Your task to perform on an android device: change the clock display to show seconds Image 0: 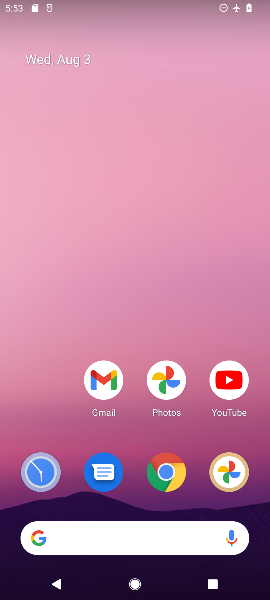
Step 0: drag from (201, 466) to (118, 33)
Your task to perform on an android device: change the clock display to show seconds Image 1: 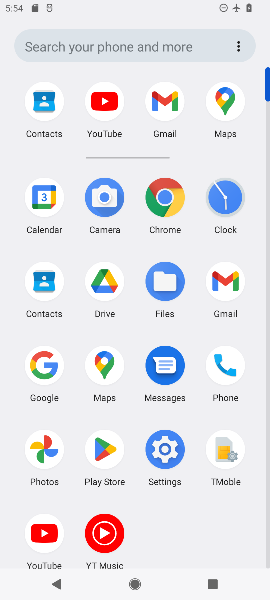
Step 1: click (242, 200)
Your task to perform on an android device: change the clock display to show seconds Image 2: 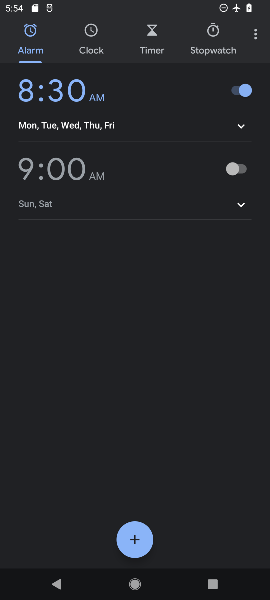
Step 2: click (254, 40)
Your task to perform on an android device: change the clock display to show seconds Image 3: 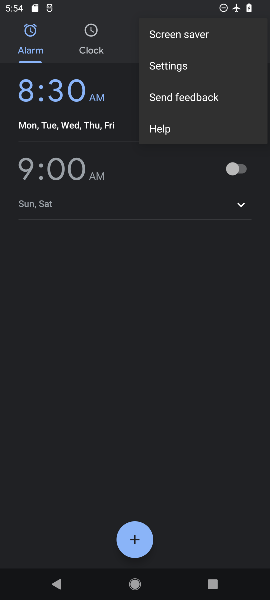
Step 3: click (186, 63)
Your task to perform on an android device: change the clock display to show seconds Image 4: 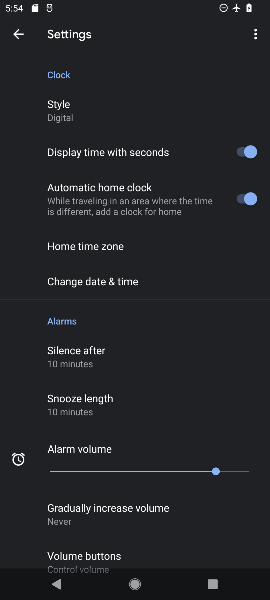
Step 4: click (220, 156)
Your task to perform on an android device: change the clock display to show seconds Image 5: 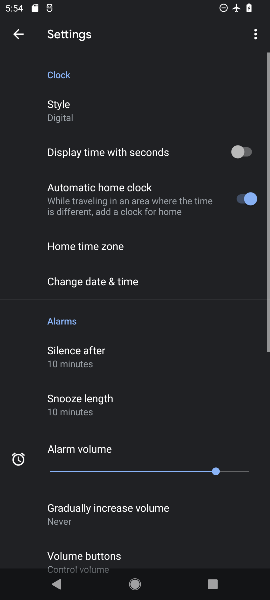
Step 5: task complete